Your task to perform on an android device: turn on location history Image 0: 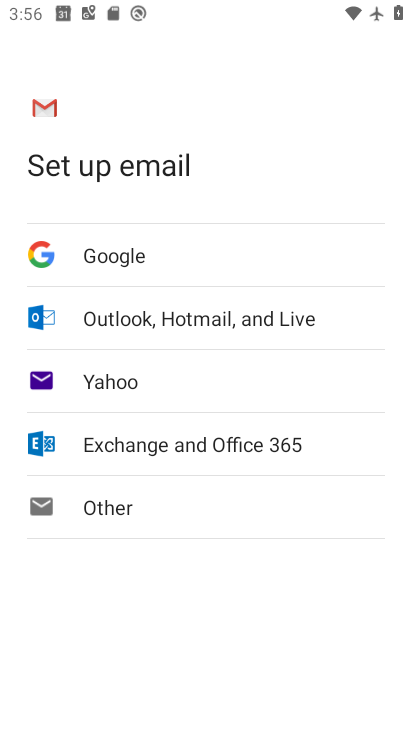
Step 0: press home button
Your task to perform on an android device: turn on location history Image 1: 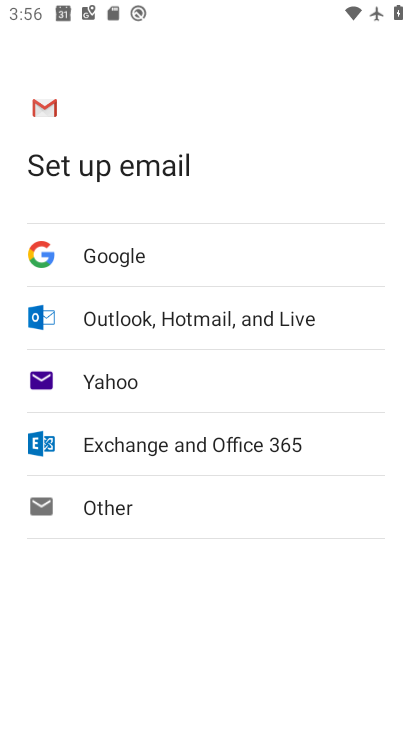
Step 1: press home button
Your task to perform on an android device: turn on location history Image 2: 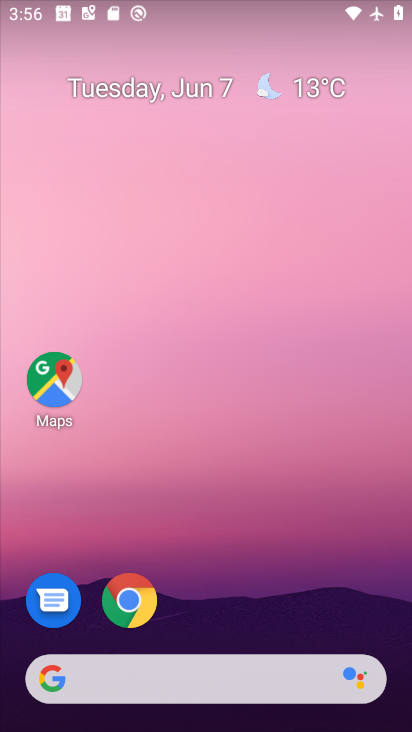
Step 2: drag from (314, 532) to (316, 70)
Your task to perform on an android device: turn on location history Image 3: 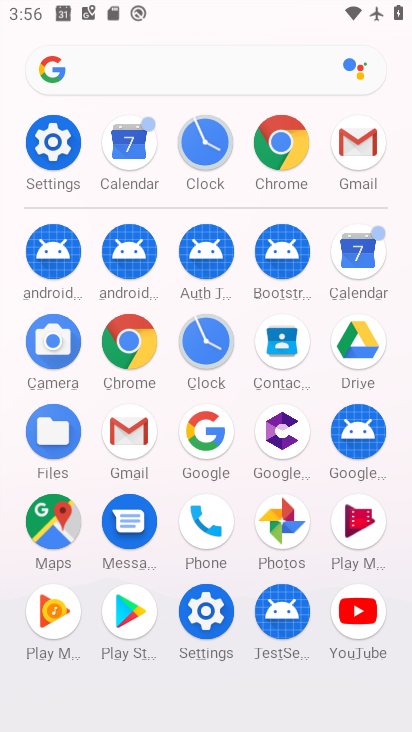
Step 3: click (68, 128)
Your task to perform on an android device: turn on location history Image 4: 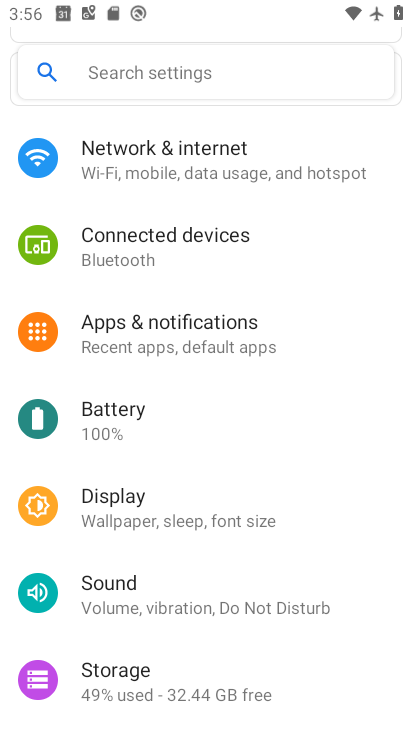
Step 4: drag from (250, 535) to (293, 46)
Your task to perform on an android device: turn on location history Image 5: 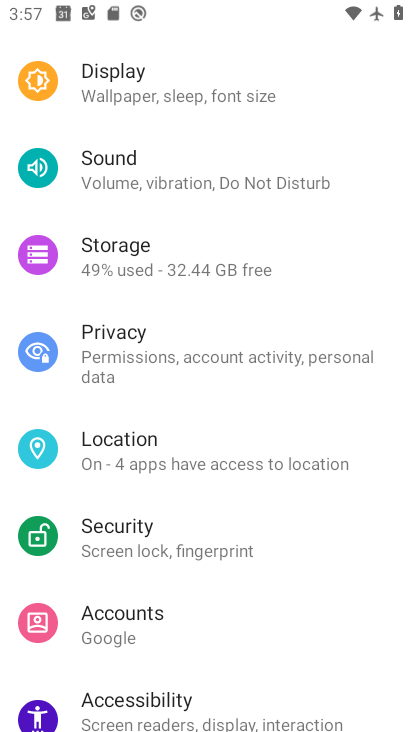
Step 5: click (150, 440)
Your task to perform on an android device: turn on location history Image 6: 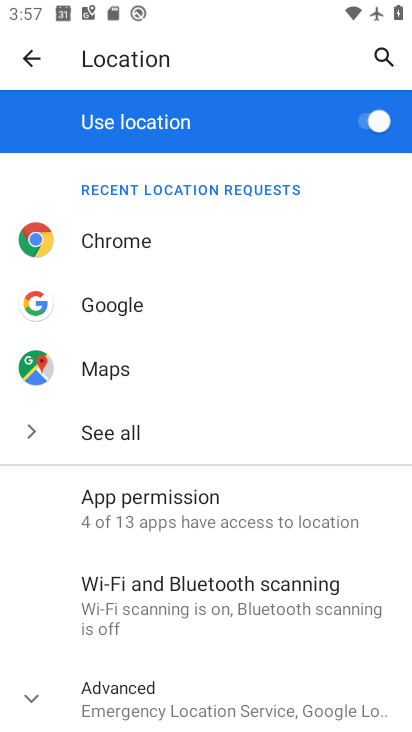
Step 6: drag from (280, 565) to (342, 126)
Your task to perform on an android device: turn on location history Image 7: 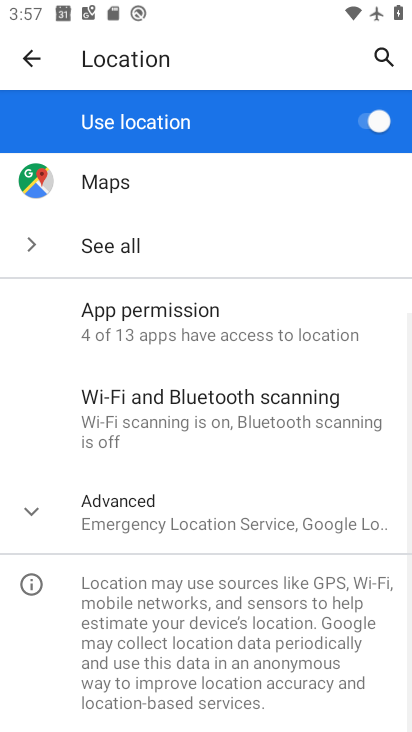
Step 7: click (154, 489)
Your task to perform on an android device: turn on location history Image 8: 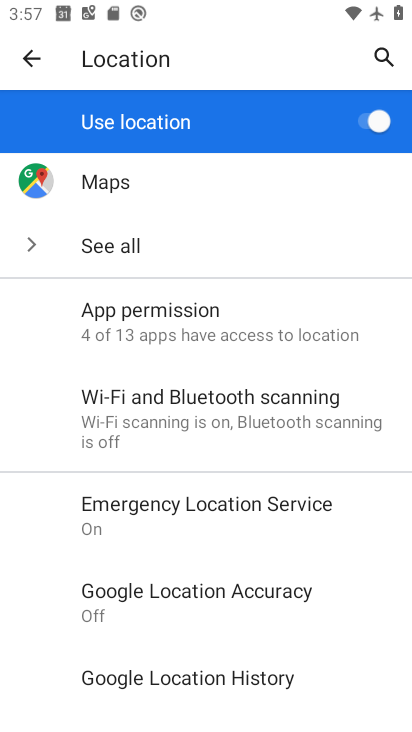
Step 8: drag from (277, 621) to (326, 276)
Your task to perform on an android device: turn on location history Image 9: 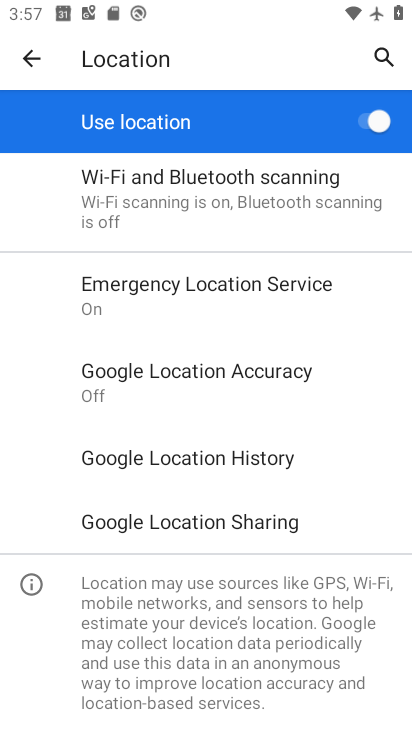
Step 9: click (248, 456)
Your task to perform on an android device: turn on location history Image 10: 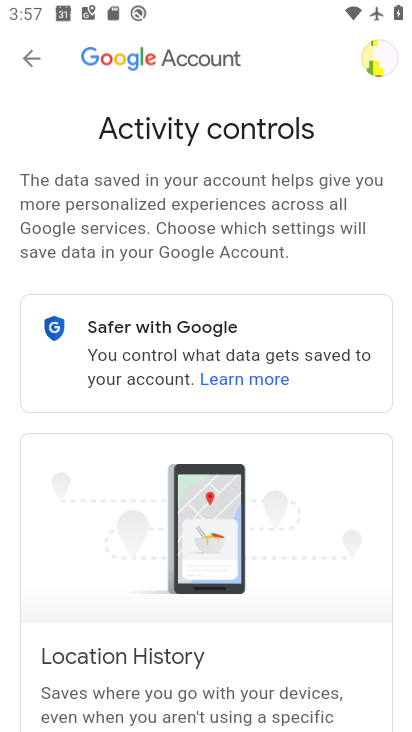
Step 10: task complete